Your task to perform on an android device: change the upload size in google photos Image 0: 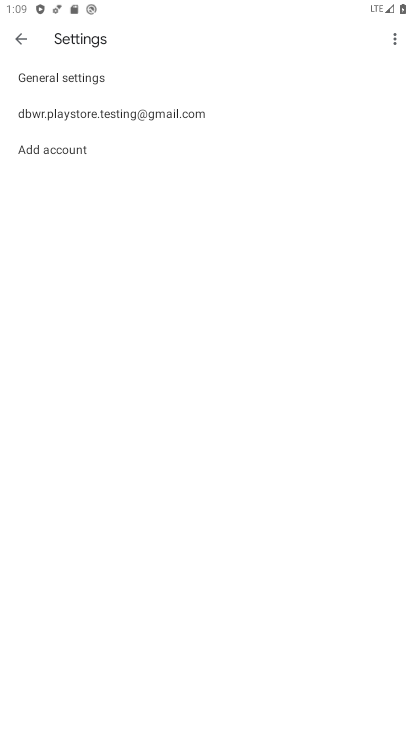
Step 0: drag from (292, 670) to (319, 156)
Your task to perform on an android device: change the upload size in google photos Image 1: 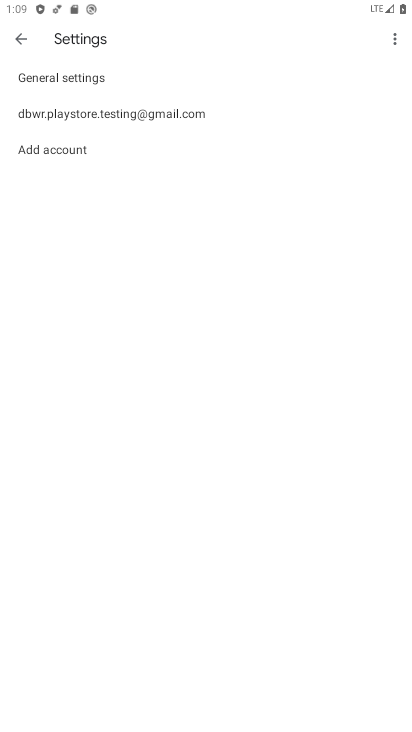
Step 1: press home button
Your task to perform on an android device: change the upload size in google photos Image 2: 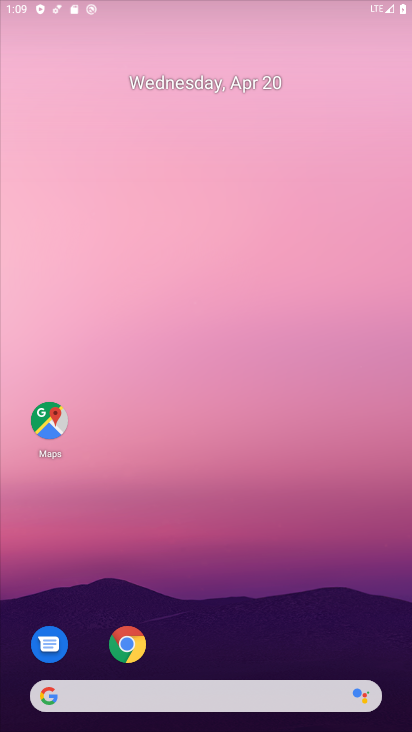
Step 2: drag from (324, 693) to (342, 133)
Your task to perform on an android device: change the upload size in google photos Image 3: 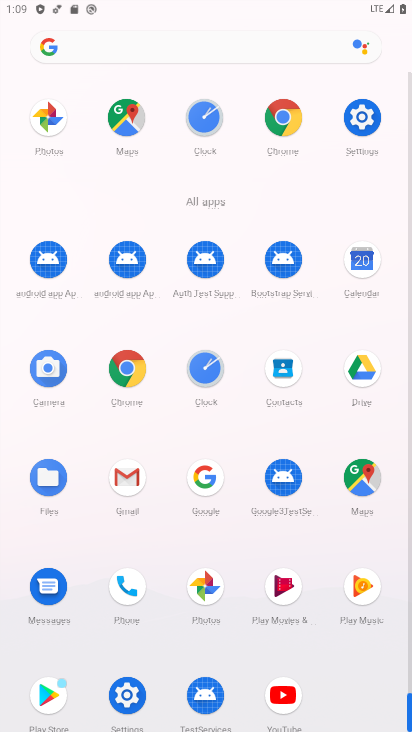
Step 3: click (210, 584)
Your task to perform on an android device: change the upload size in google photos Image 4: 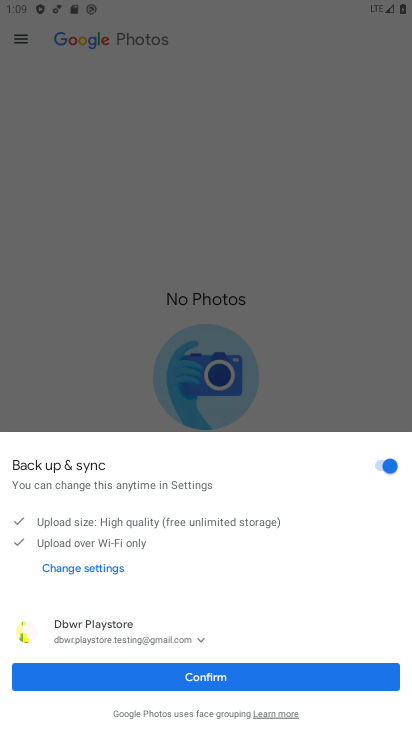
Step 4: click (266, 685)
Your task to perform on an android device: change the upload size in google photos Image 5: 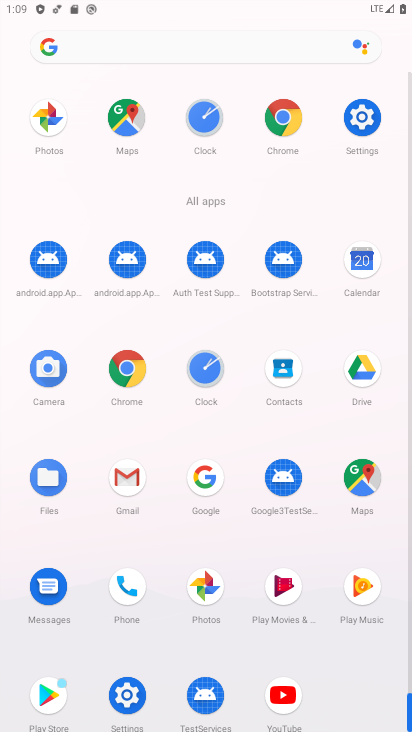
Step 5: click (215, 581)
Your task to perform on an android device: change the upload size in google photos Image 6: 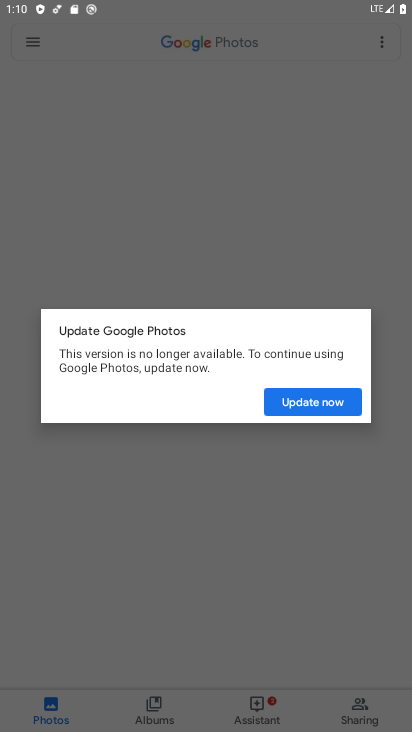
Step 6: click (336, 399)
Your task to perform on an android device: change the upload size in google photos Image 7: 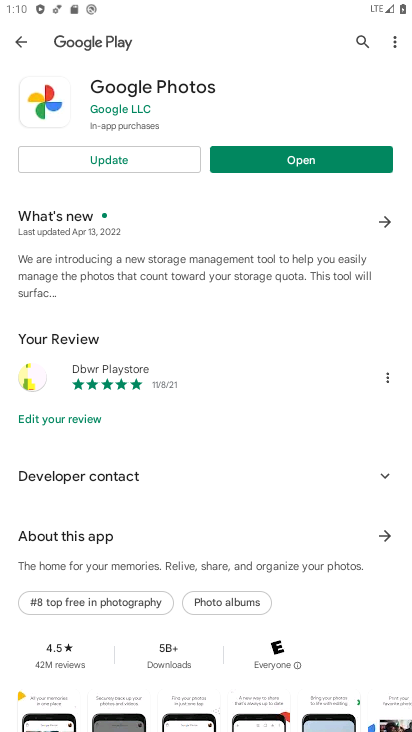
Step 7: click (122, 162)
Your task to perform on an android device: change the upload size in google photos Image 8: 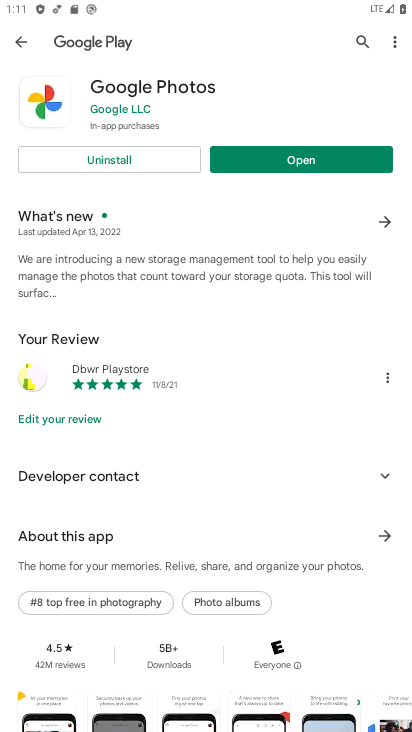
Step 8: click (285, 161)
Your task to perform on an android device: change the upload size in google photos Image 9: 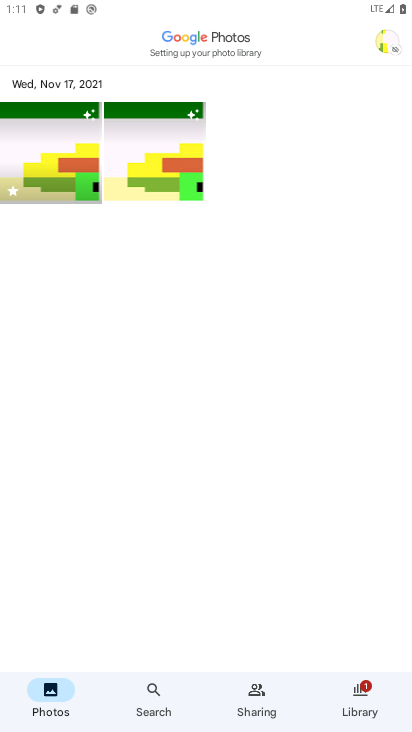
Step 9: click (388, 48)
Your task to perform on an android device: change the upload size in google photos Image 10: 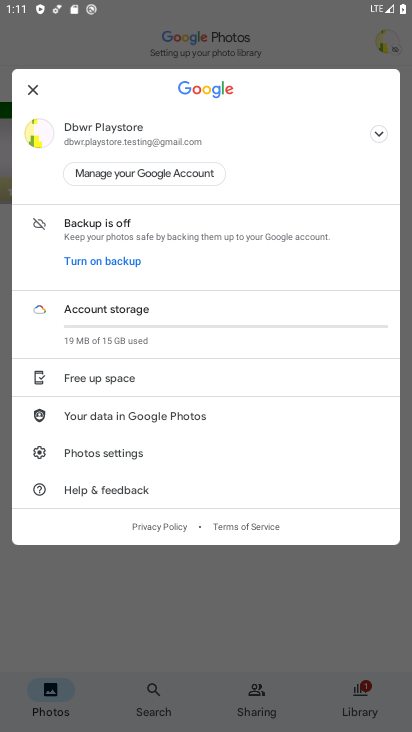
Step 10: click (95, 449)
Your task to perform on an android device: change the upload size in google photos Image 11: 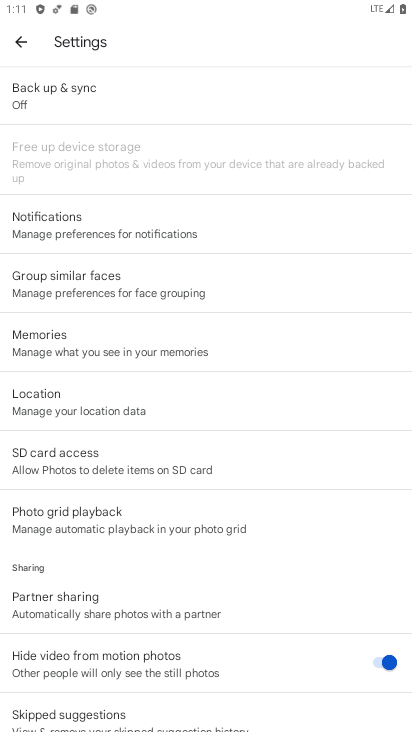
Step 11: click (96, 97)
Your task to perform on an android device: change the upload size in google photos Image 12: 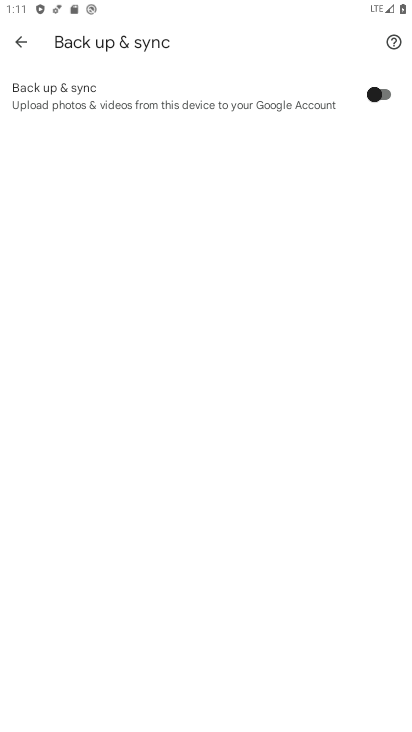
Step 12: click (384, 95)
Your task to perform on an android device: change the upload size in google photos Image 13: 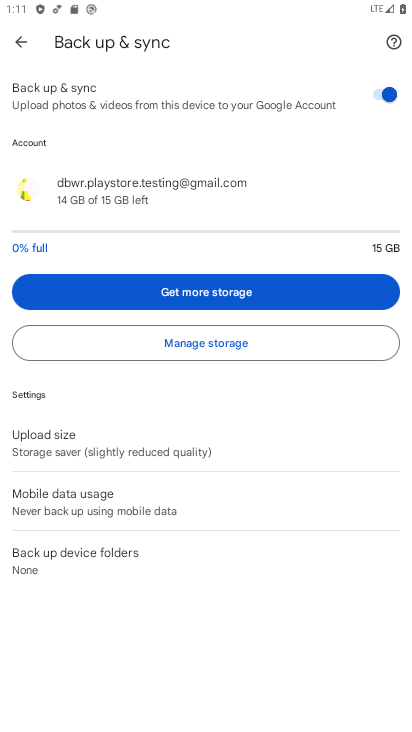
Step 13: click (117, 443)
Your task to perform on an android device: change the upload size in google photos Image 14: 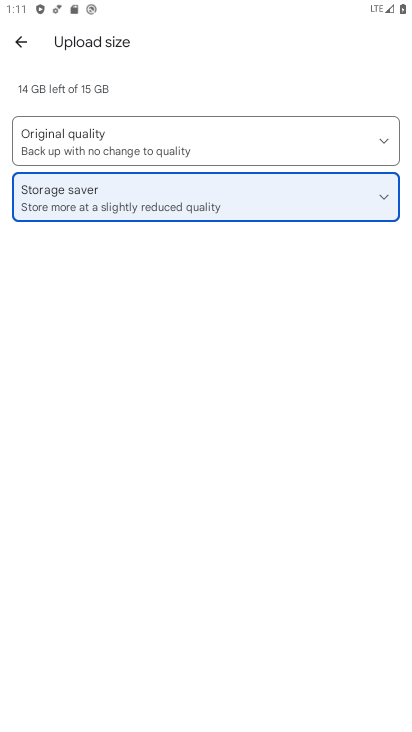
Step 14: click (118, 143)
Your task to perform on an android device: change the upload size in google photos Image 15: 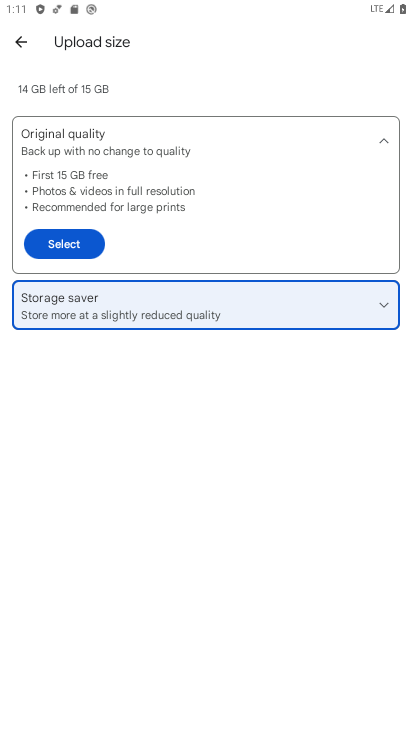
Step 15: click (342, 217)
Your task to perform on an android device: change the upload size in google photos Image 16: 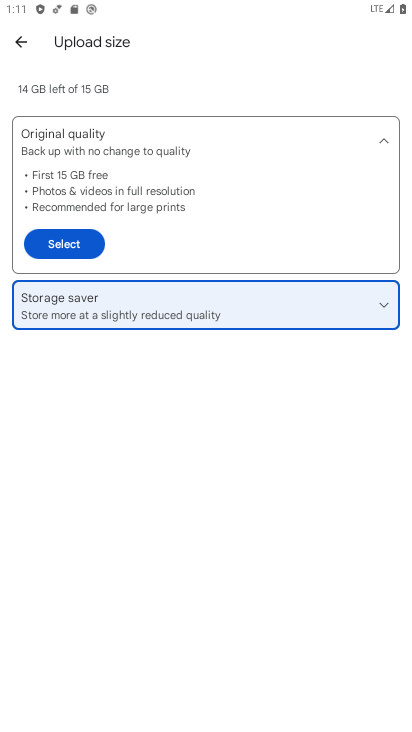
Step 16: click (279, 194)
Your task to perform on an android device: change the upload size in google photos Image 17: 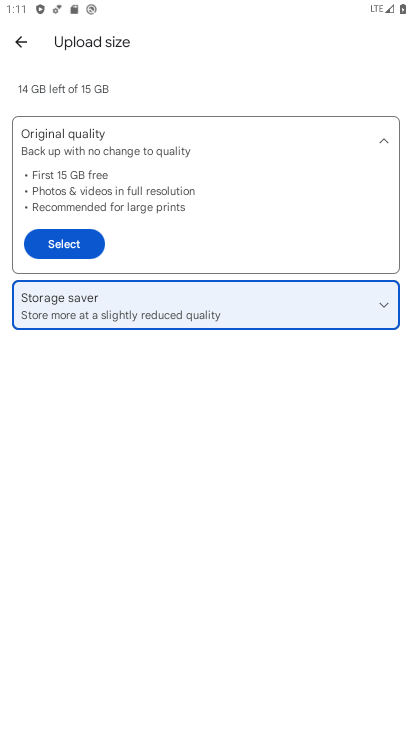
Step 17: click (67, 238)
Your task to perform on an android device: change the upload size in google photos Image 18: 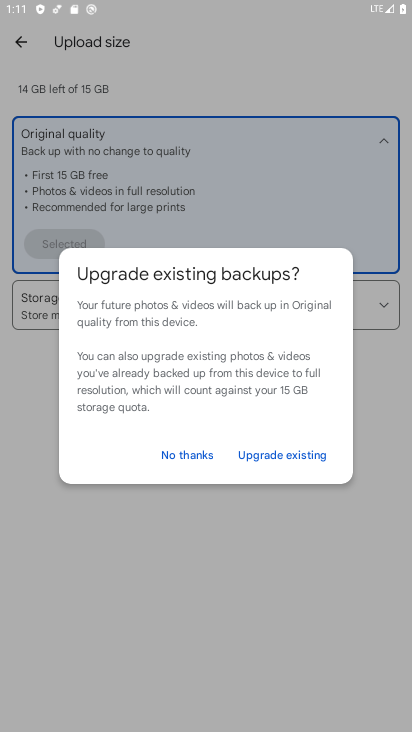
Step 18: click (256, 449)
Your task to perform on an android device: change the upload size in google photos Image 19: 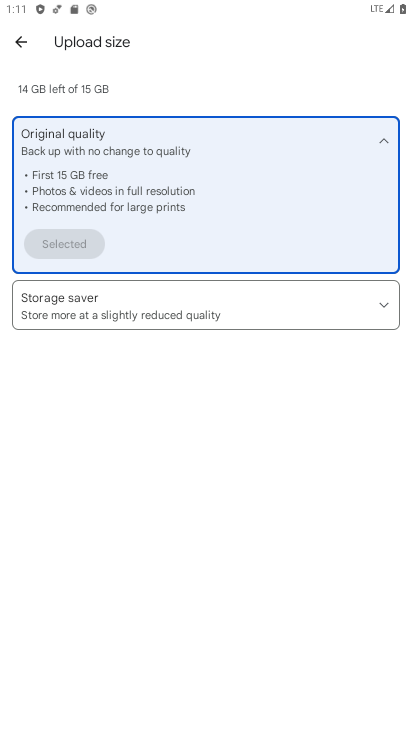
Step 19: task complete